Your task to perform on an android device: Turn off the flashlight Image 0: 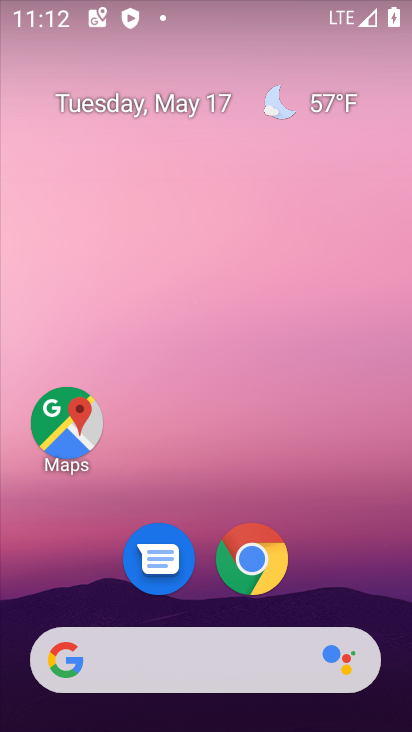
Step 0: drag from (350, 12) to (385, 606)
Your task to perform on an android device: Turn off the flashlight Image 1: 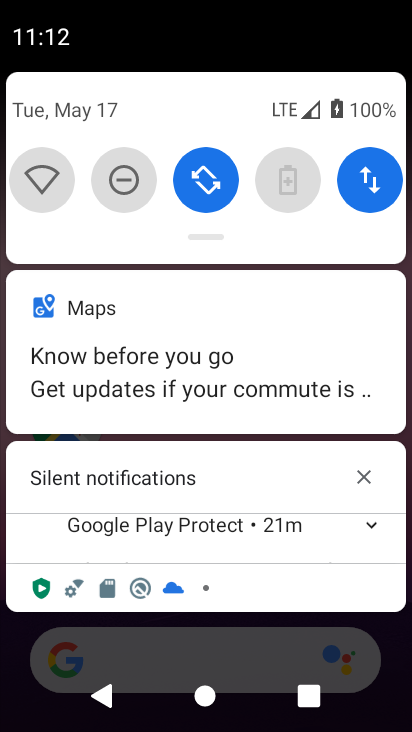
Step 1: drag from (289, 234) to (329, 641)
Your task to perform on an android device: Turn off the flashlight Image 2: 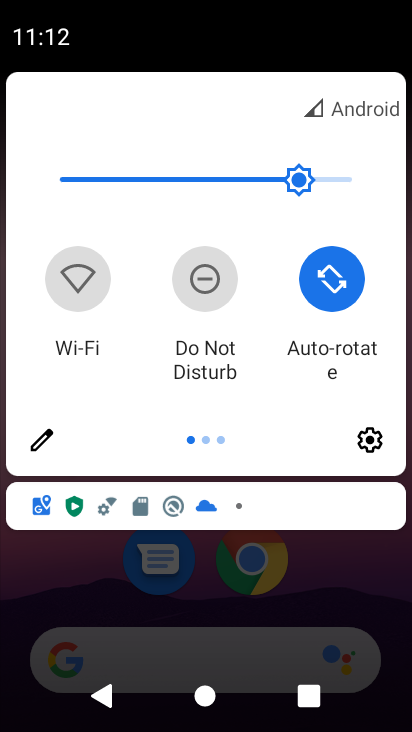
Step 2: click (45, 446)
Your task to perform on an android device: Turn off the flashlight Image 3: 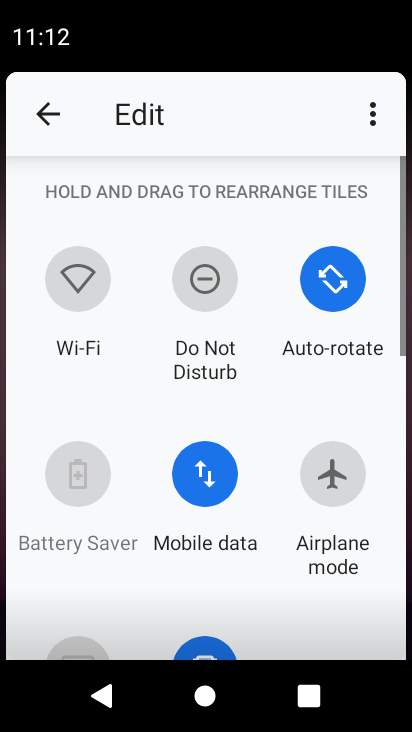
Step 3: task complete